Your task to perform on an android device: turn on improve location accuracy Image 0: 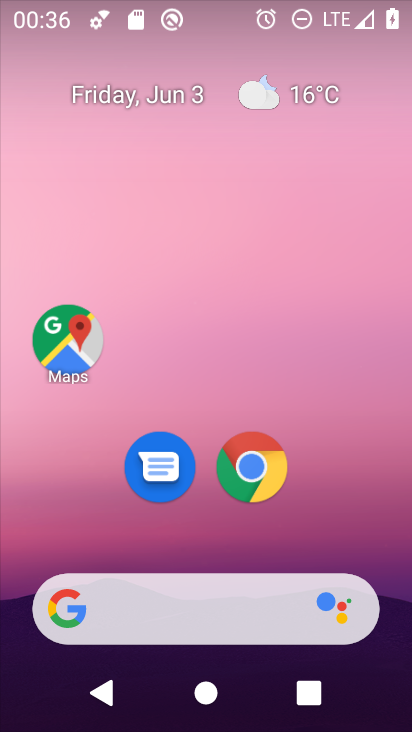
Step 0: drag from (393, 592) to (304, 146)
Your task to perform on an android device: turn on improve location accuracy Image 1: 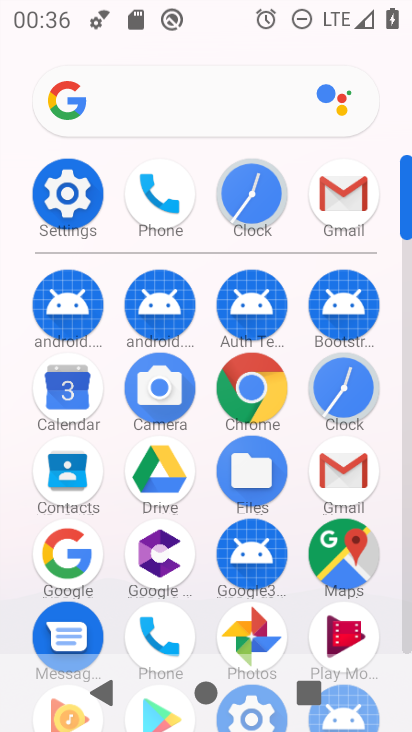
Step 1: click (411, 632)
Your task to perform on an android device: turn on improve location accuracy Image 2: 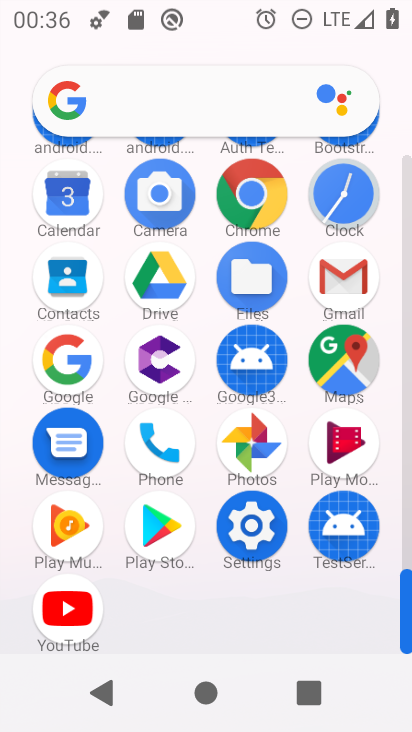
Step 2: click (249, 527)
Your task to perform on an android device: turn on improve location accuracy Image 3: 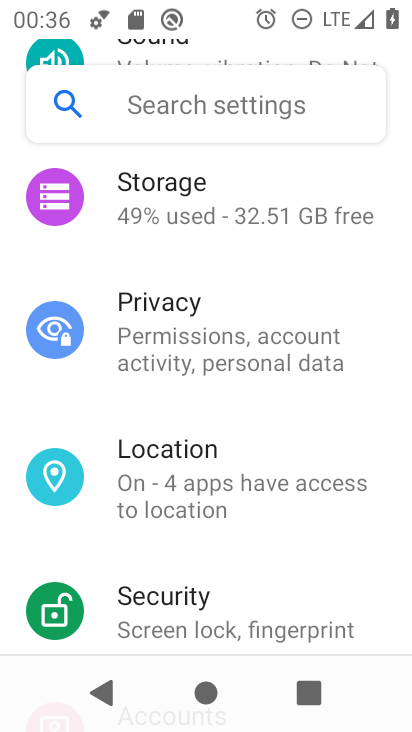
Step 3: click (179, 440)
Your task to perform on an android device: turn on improve location accuracy Image 4: 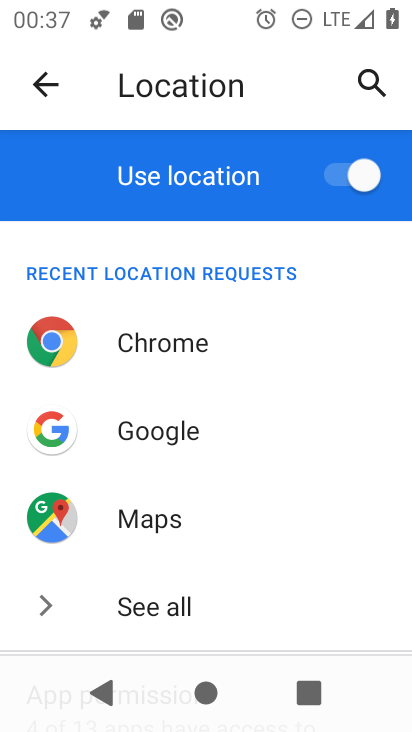
Step 4: drag from (228, 579) to (249, 218)
Your task to perform on an android device: turn on improve location accuracy Image 5: 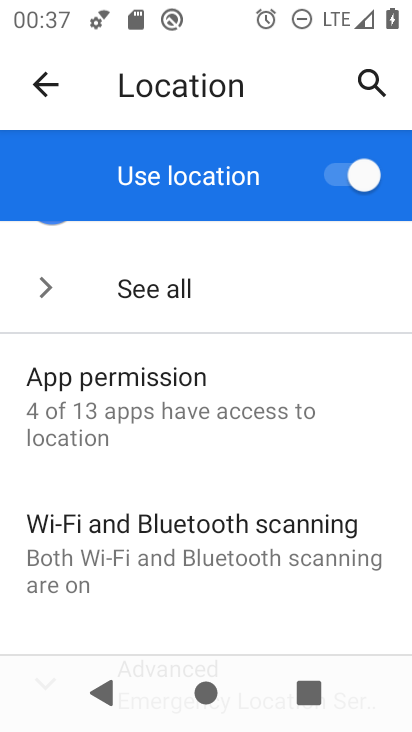
Step 5: drag from (85, 578) to (207, 171)
Your task to perform on an android device: turn on improve location accuracy Image 6: 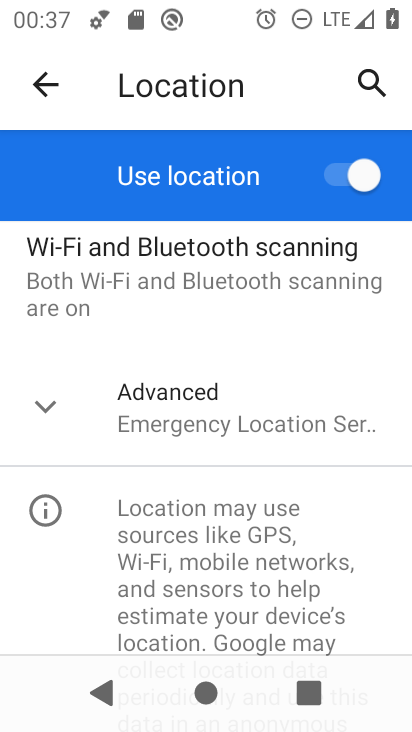
Step 6: click (26, 417)
Your task to perform on an android device: turn on improve location accuracy Image 7: 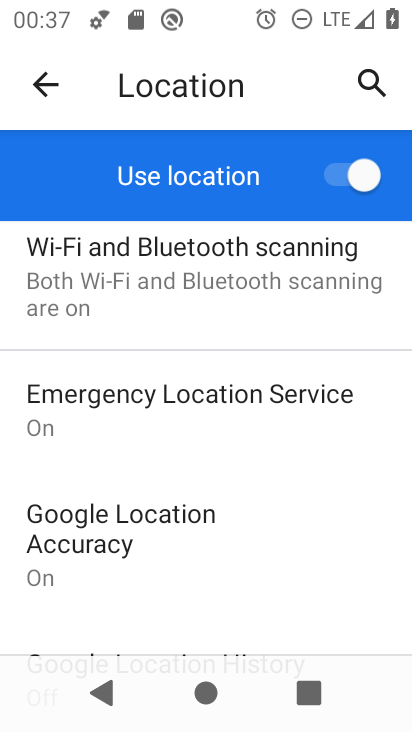
Step 7: click (89, 533)
Your task to perform on an android device: turn on improve location accuracy Image 8: 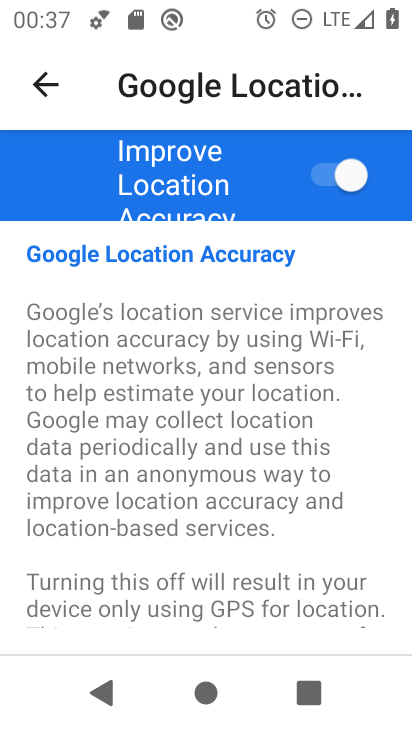
Step 8: task complete